Your task to perform on an android device: set an alarm Image 0: 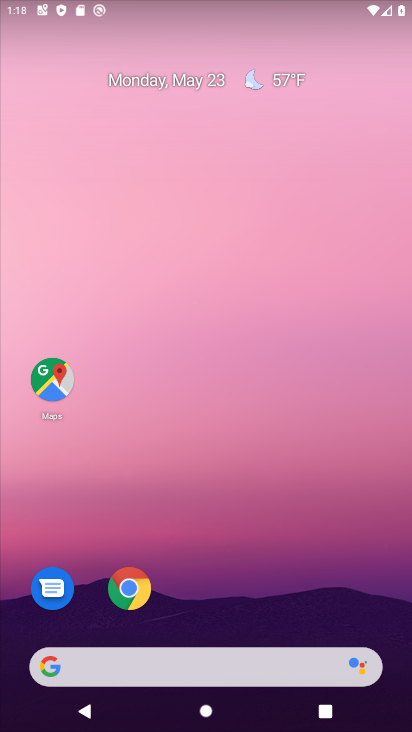
Step 0: drag from (225, 595) to (143, 64)
Your task to perform on an android device: set an alarm Image 1: 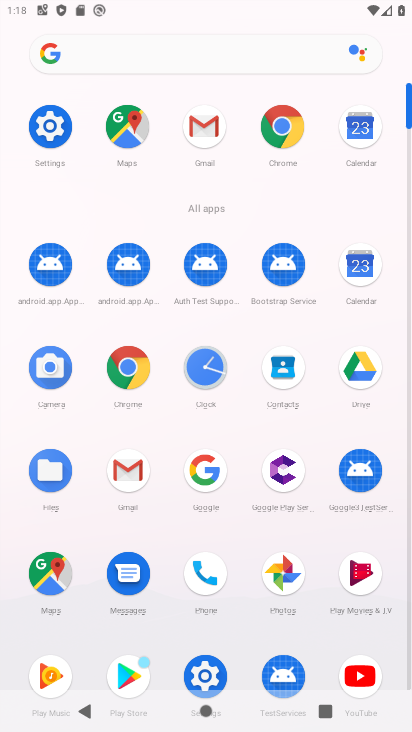
Step 1: click (207, 376)
Your task to perform on an android device: set an alarm Image 2: 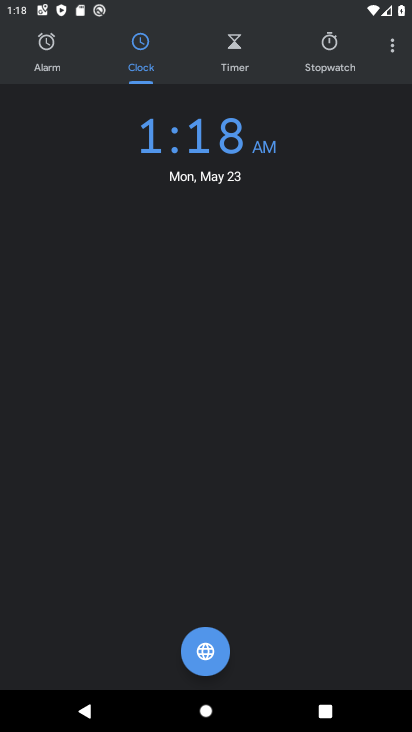
Step 2: click (52, 50)
Your task to perform on an android device: set an alarm Image 3: 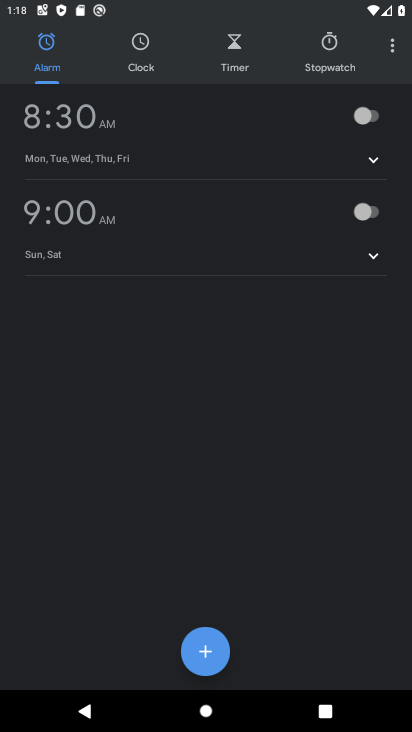
Step 3: click (211, 658)
Your task to perform on an android device: set an alarm Image 4: 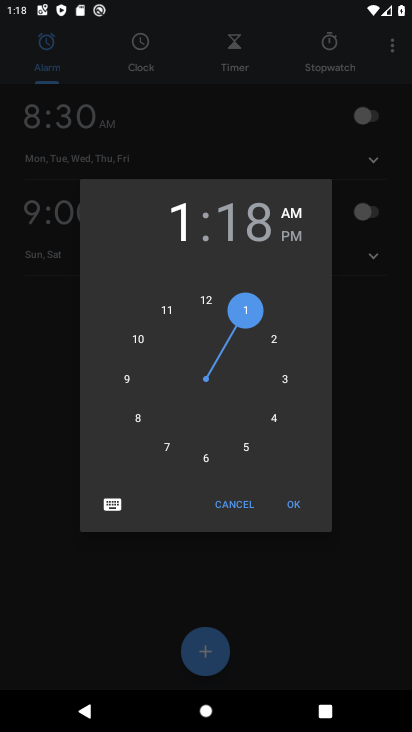
Step 4: click (301, 521)
Your task to perform on an android device: set an alarm Image 5: 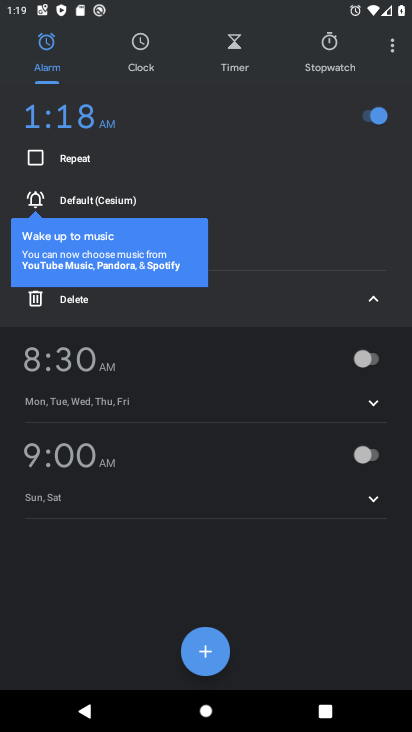
Step 5: task complete